Your task to perform on an android device: uninstall "DoorDash - Food Delivery" Image 0: 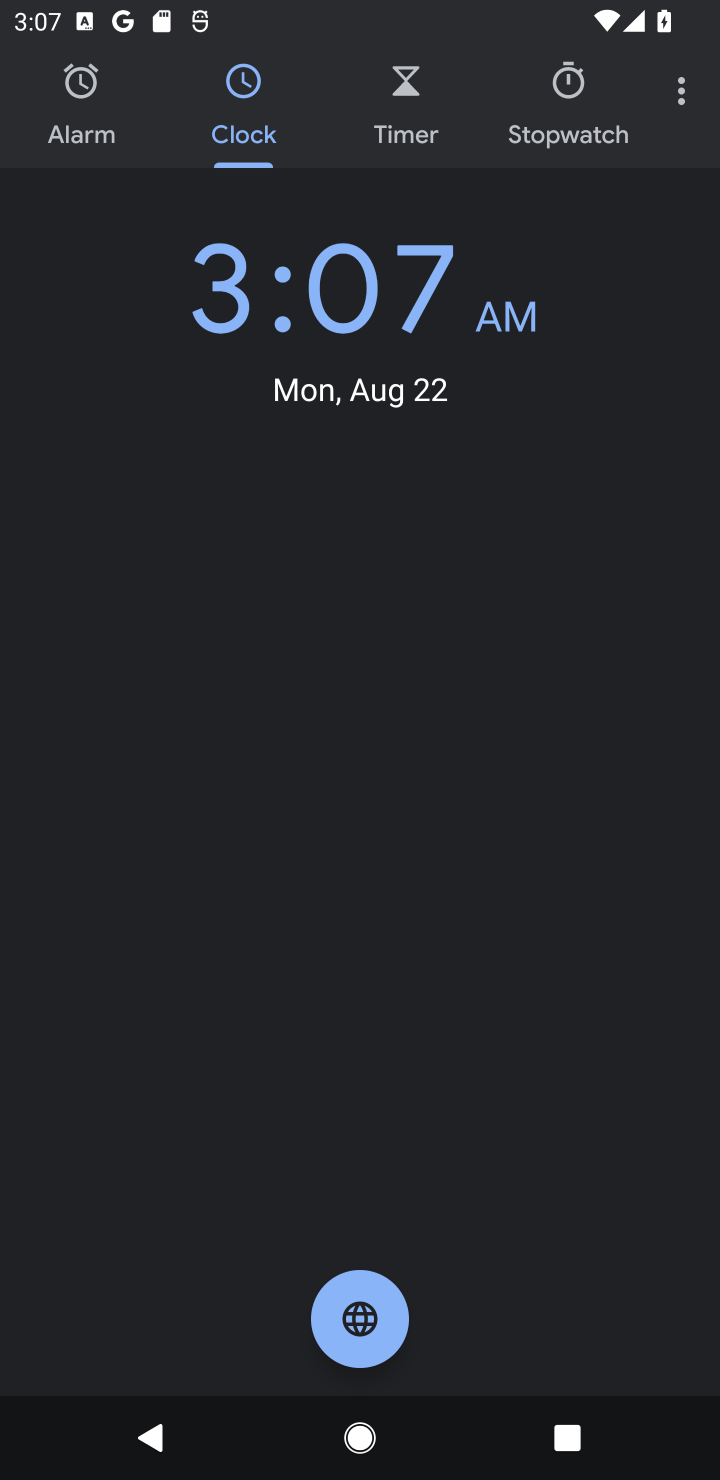
Step 0: press home button
Your task to perform on an android device: uninstall "DoorDash - Food Delivery" Image 1: 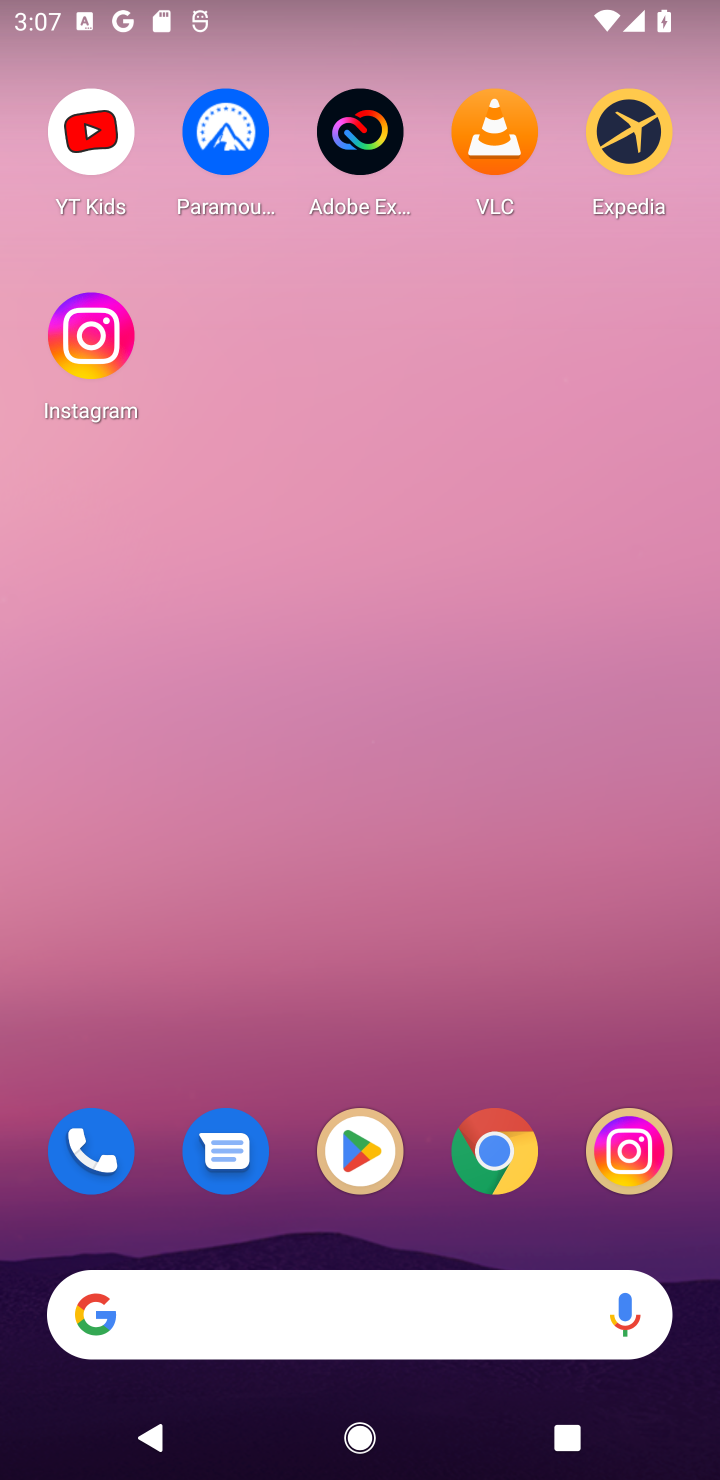
Step 1: press home button
Your task to perform on an android device: uninstall "DoorDash - Food Delivery" Image 2: 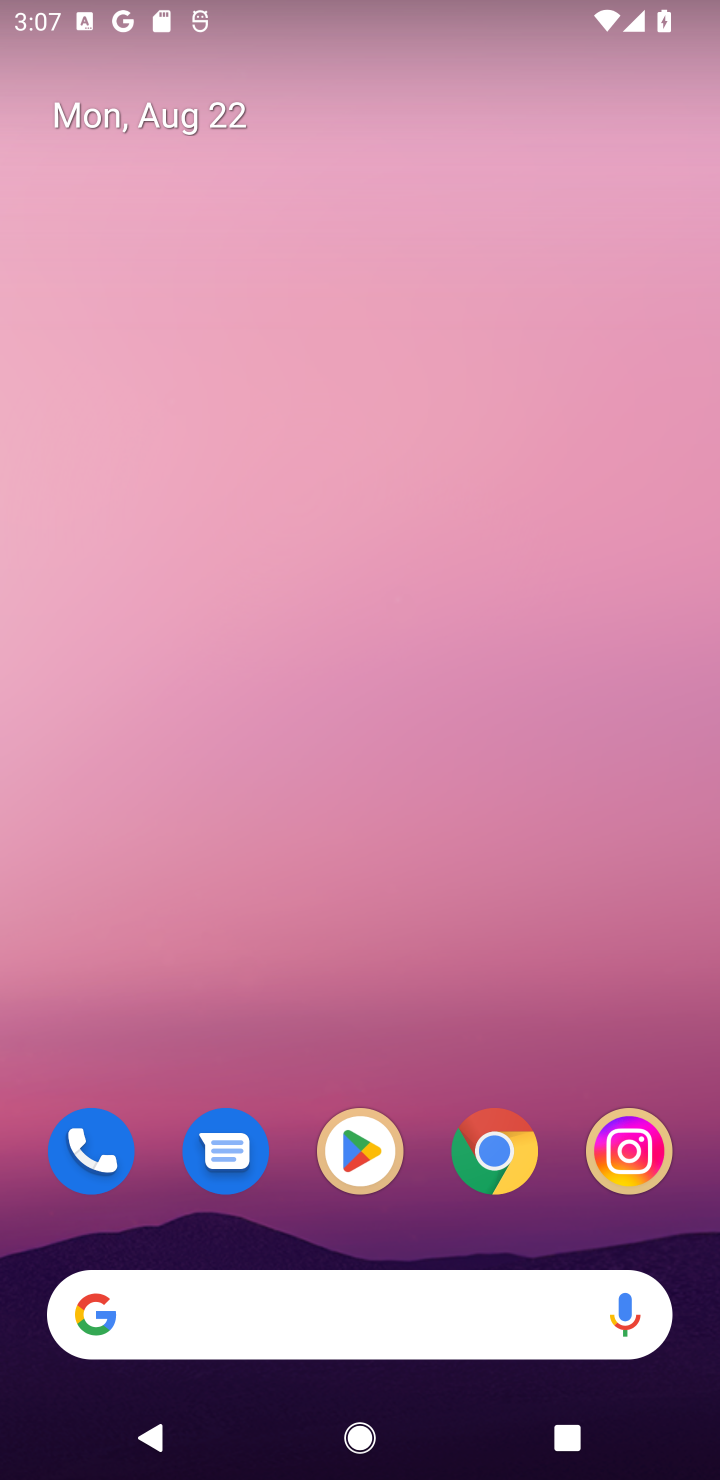
Step 2: click (352, 1146)
Your task to perform on an android device: uninstall "DoorDash - Food Delivery" Image 3: 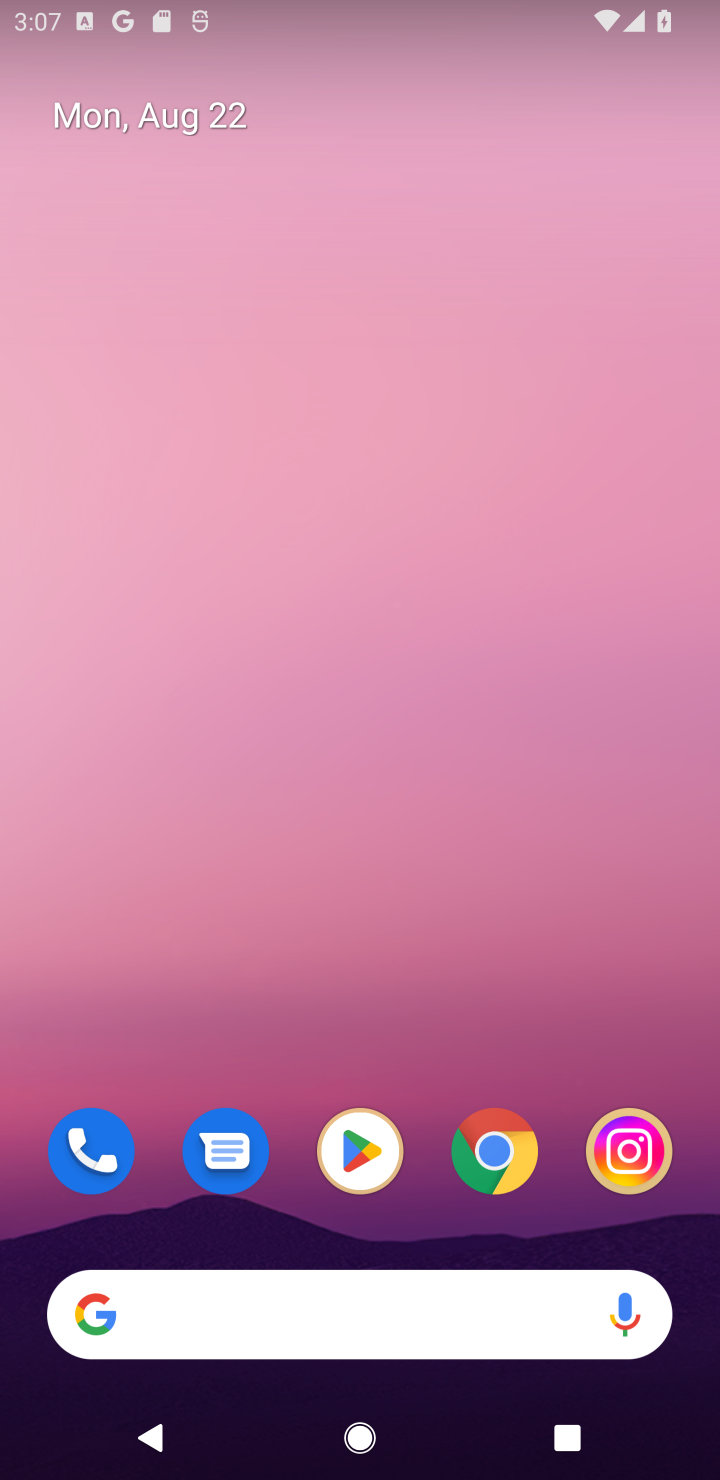
Step 3: click (347, 1142)
Your task to perform on an android device: uninstall "DoorDash - Food Delivery" Image 4: 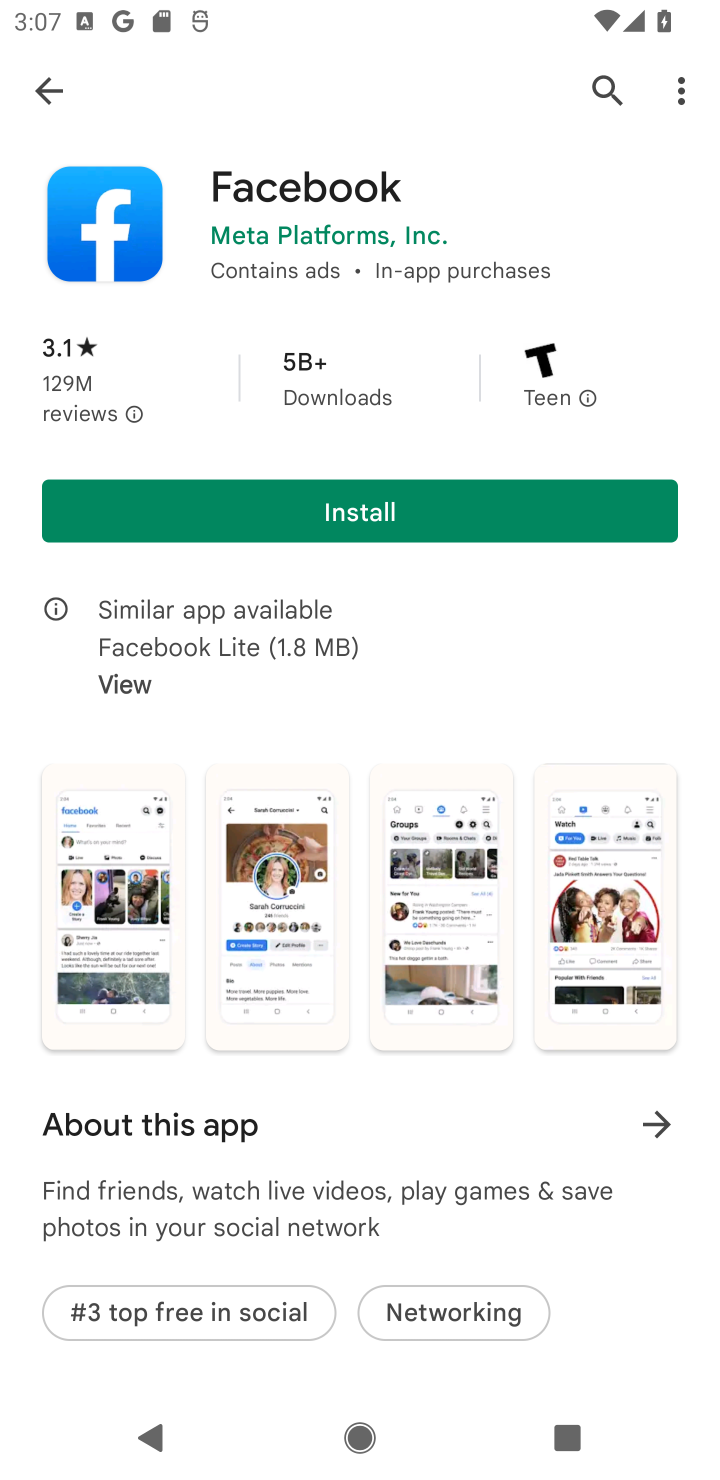
Step 4: click (601, 82)
Your task to perform on an android device: uninstall "DoorDash - Food Delivery" Image 5: 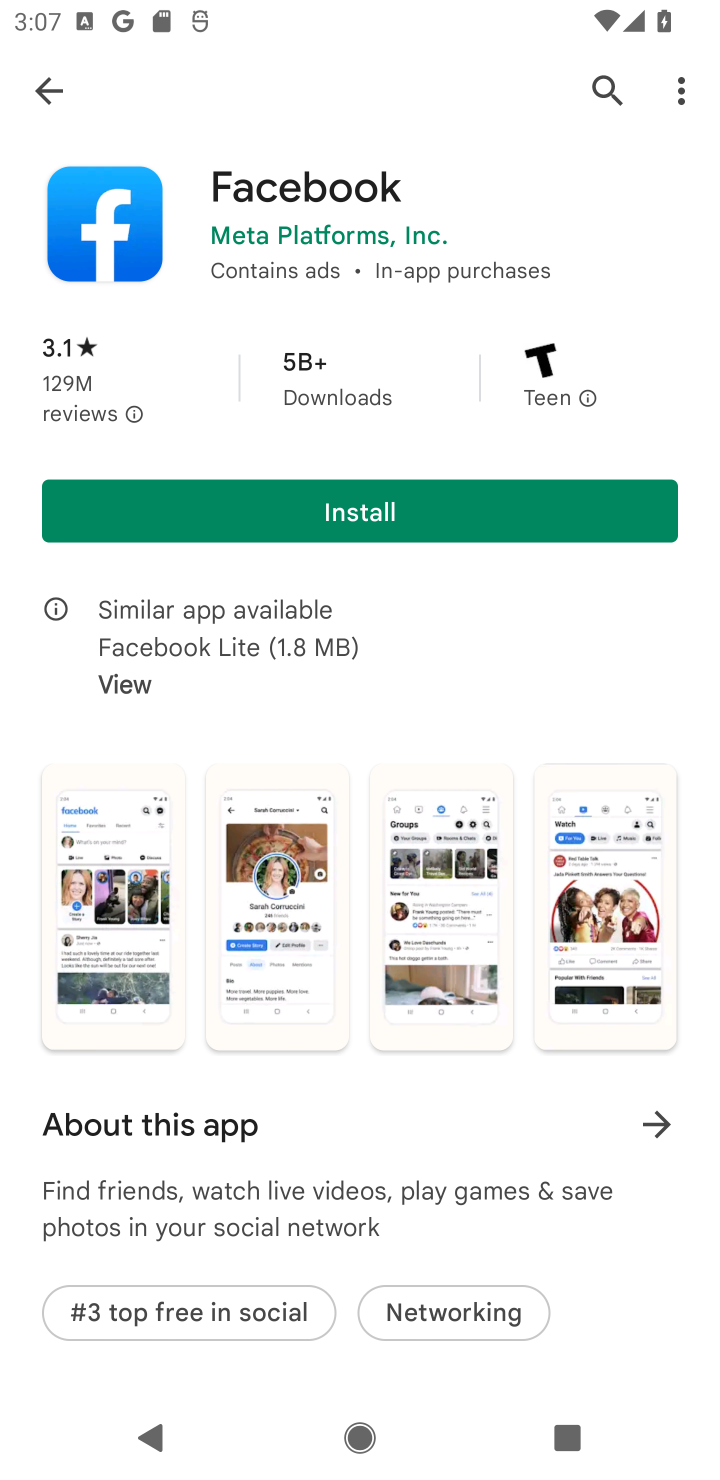
Step 5: click (590, 94)
Your task to perform on an android device: uninstall "DoorDash - Food Delivery" Image 6: 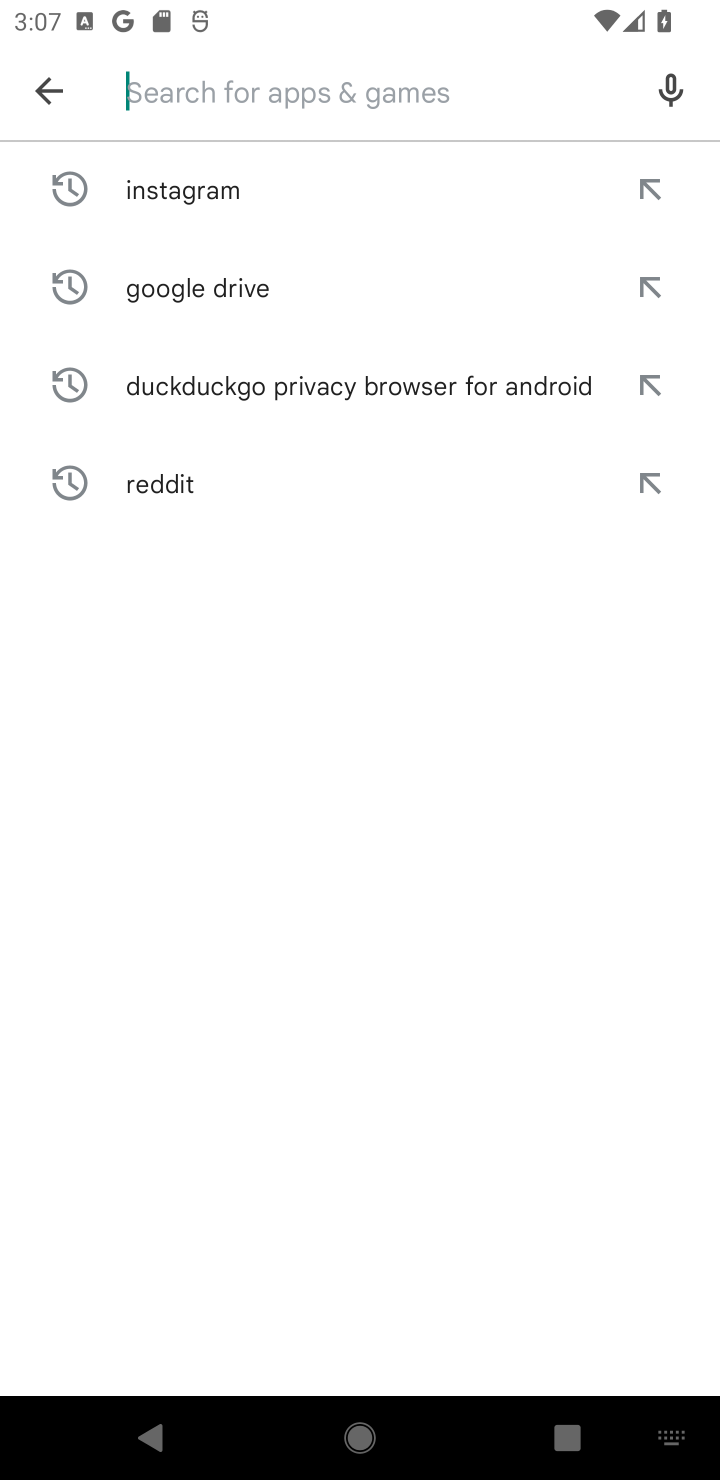
Step 6: type "DoorDash - Food Delivery"
Your task to perform on an android device: uninstall "DoorDash - Food Delivery" Image 7: 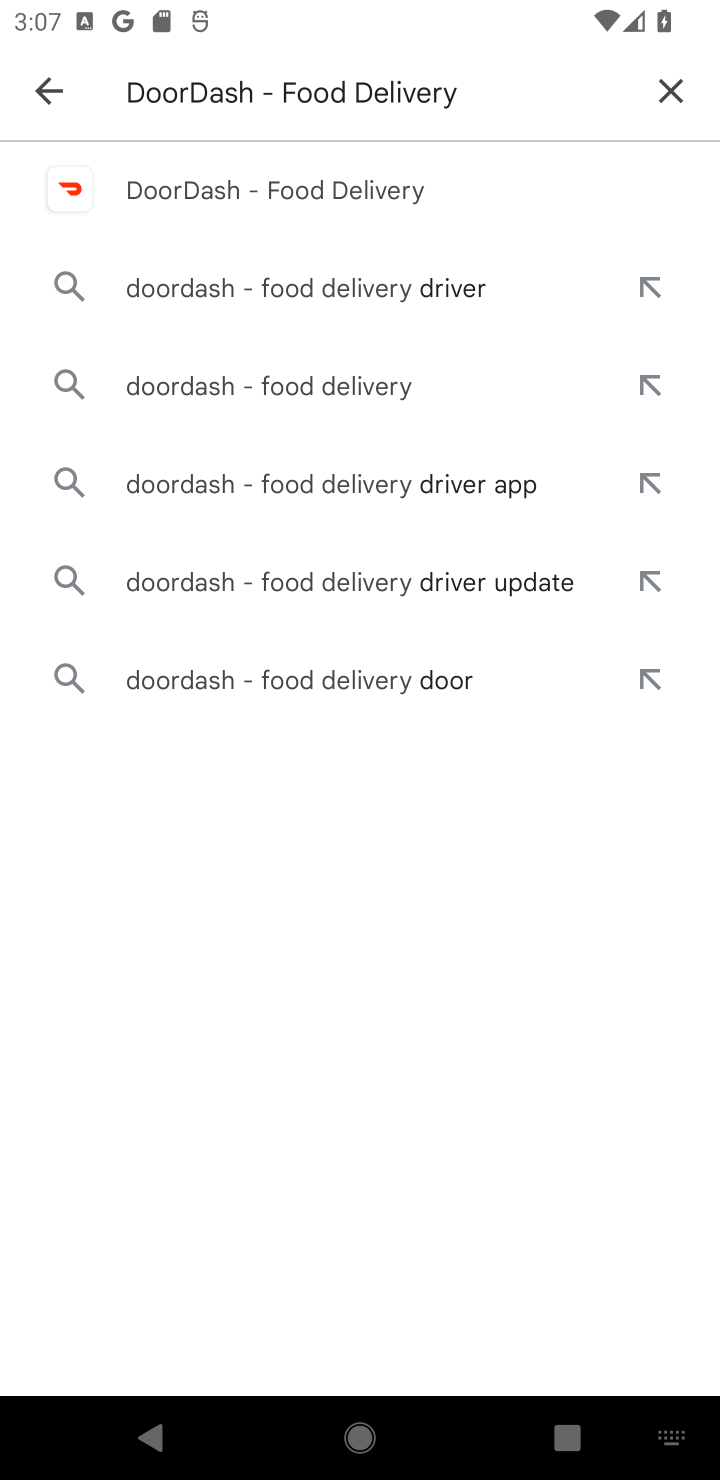
Step 7: click (252, 189)
Your task to perform on an android device: uninstall "DoorDash - Food Delivery" Image 8: 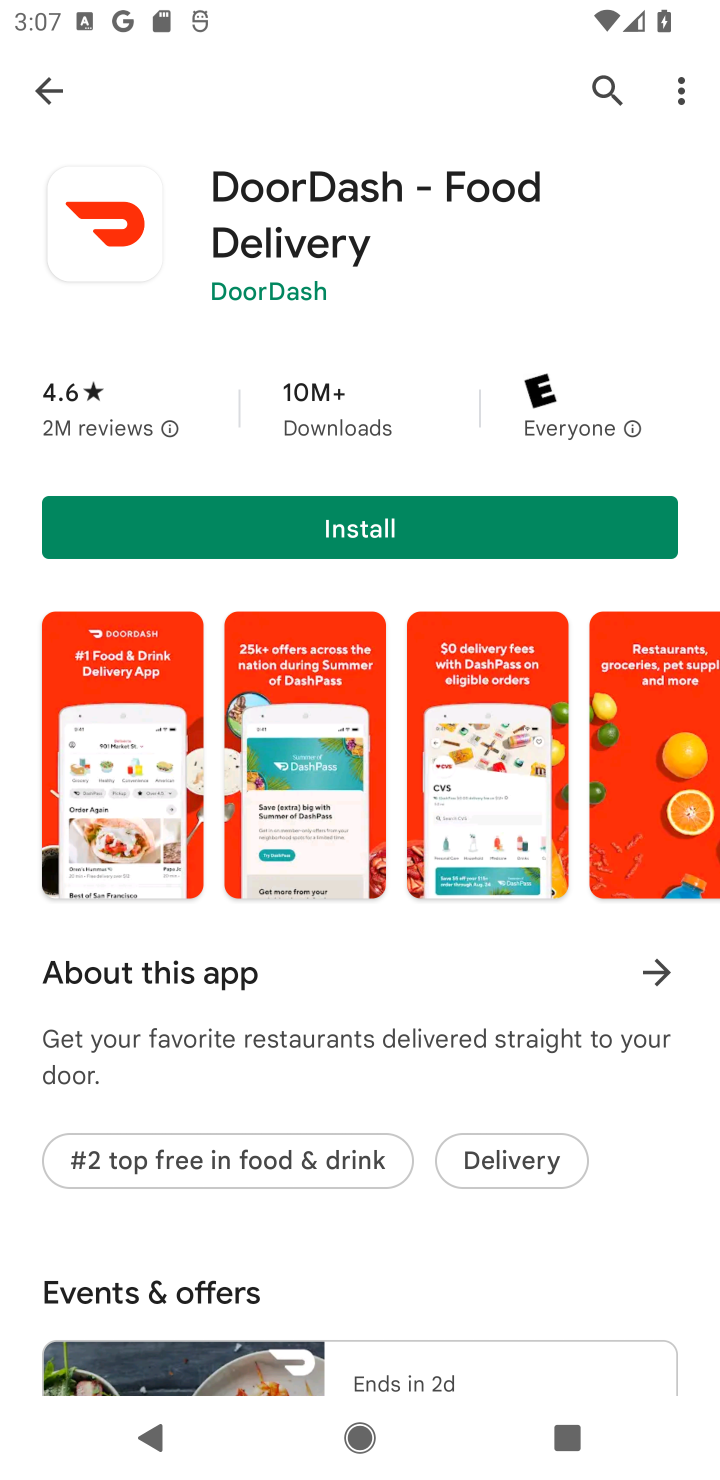
Step 8: task complete